Your task to perform on an android device: see tabs open on other devices in the chrome app Image 0: 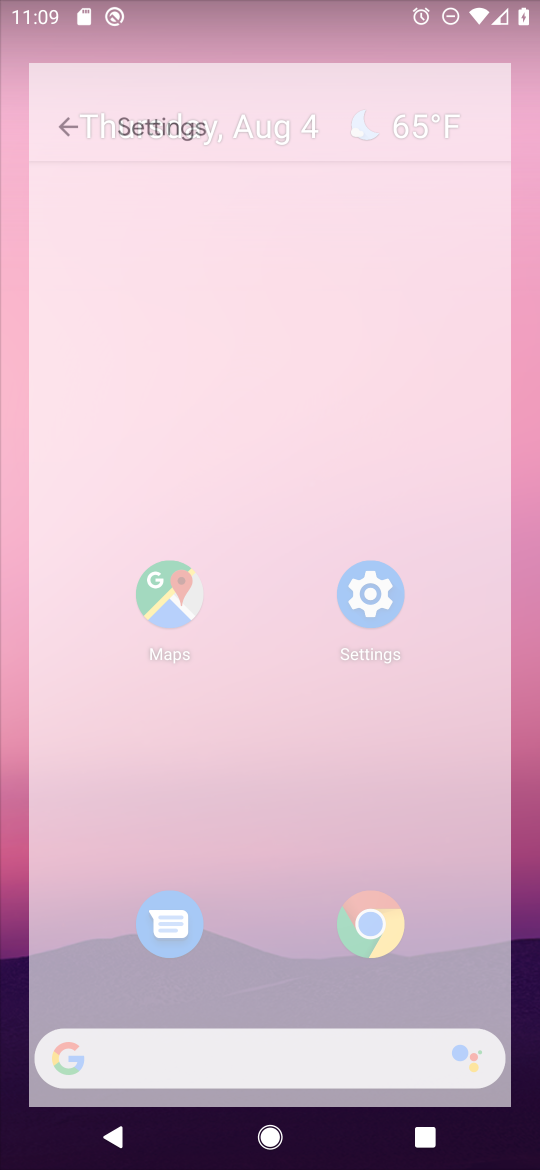
Step 0: press home button
Your task to perform on an android device: see tabs open on other devices in the chrome app Image 1: 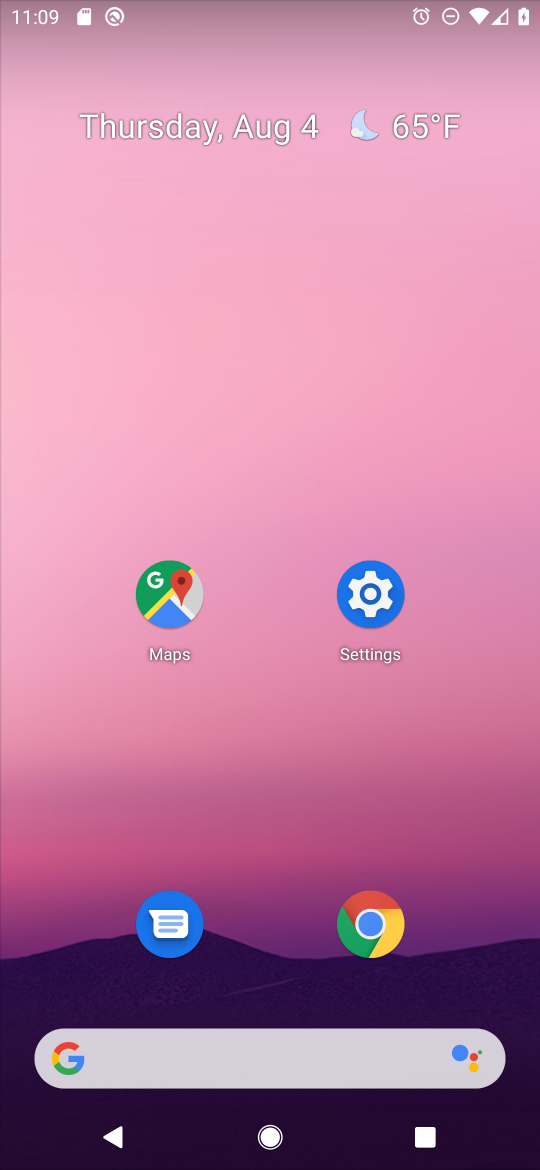
Step 1: click (371, 908)
Your task to perform on an android device: see tabs open on other devices in the chrome app Image 2: 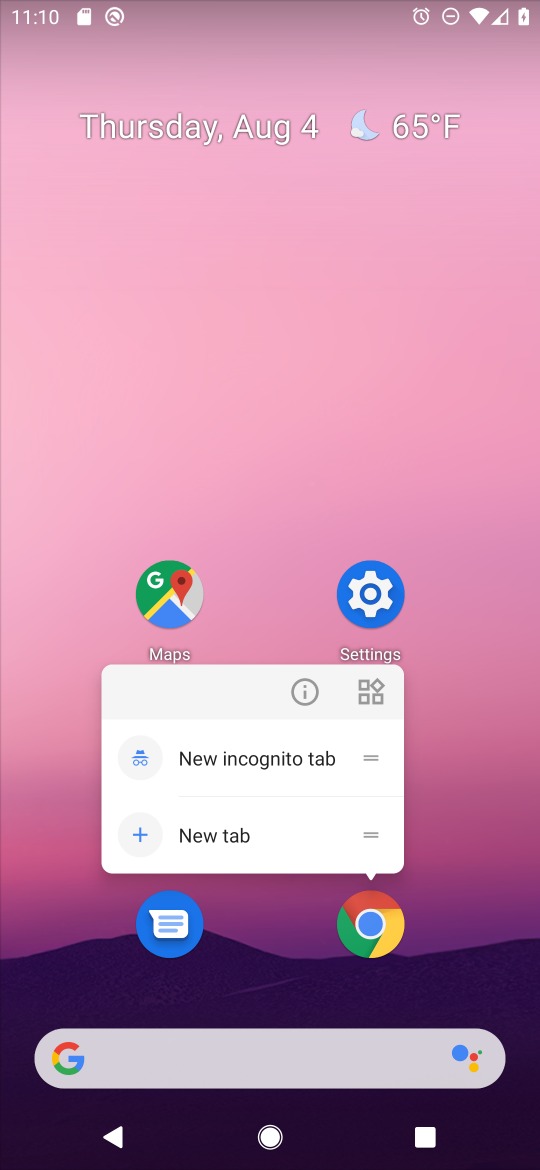
Step 2: click (371, 924)
Your task to perform on an android device: see tabs open on other devices in the chrome app Image 3: 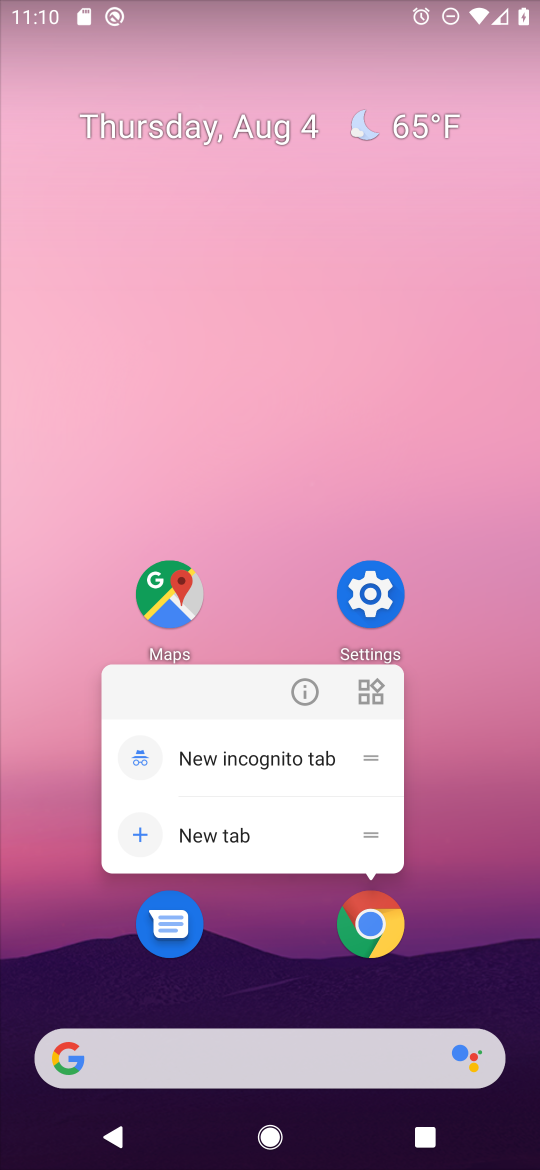
Step 3: click (371, 926)
Your task to perform on an android device: see tabs open on other devices in the chrome app Image 4: 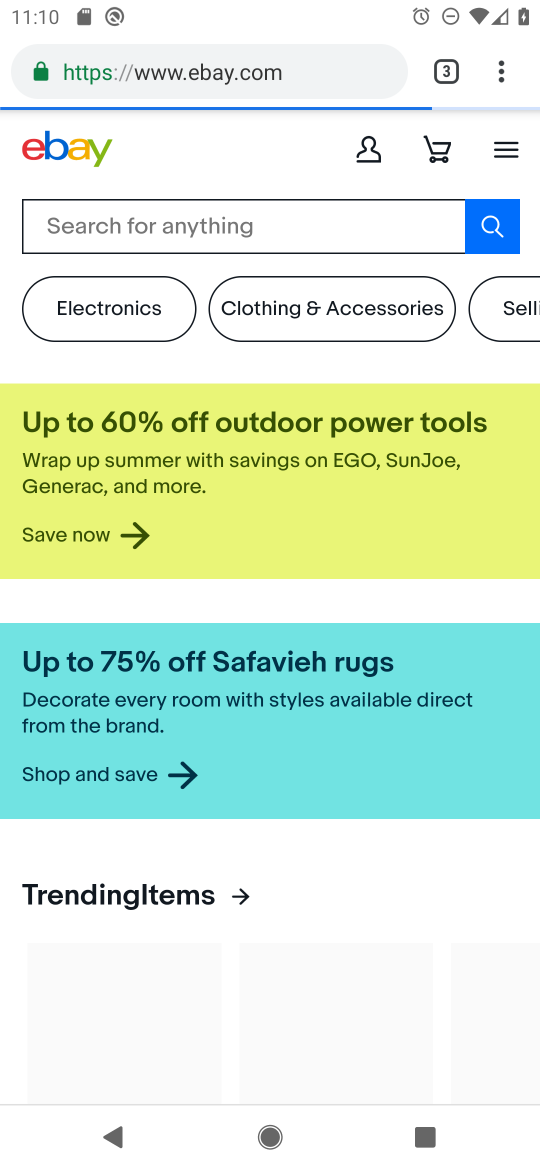
Step 4: task complete